Your task to perform on an android device: Open location settings Image 0: 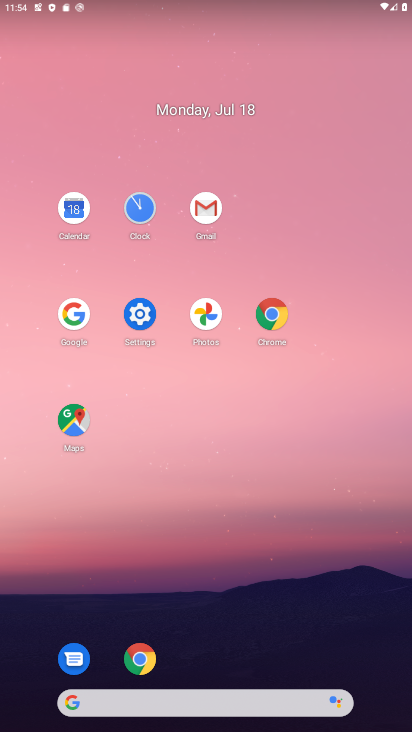
Step 0: click (135, 309)
Your task to perform on an android device: Open location settings Image 1: 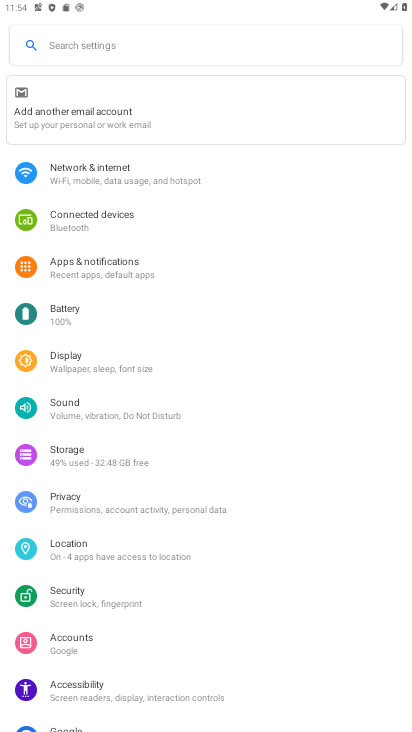
Step 1: click (161, 543)
Your task to perform on an android device: Open location settings Image 2: 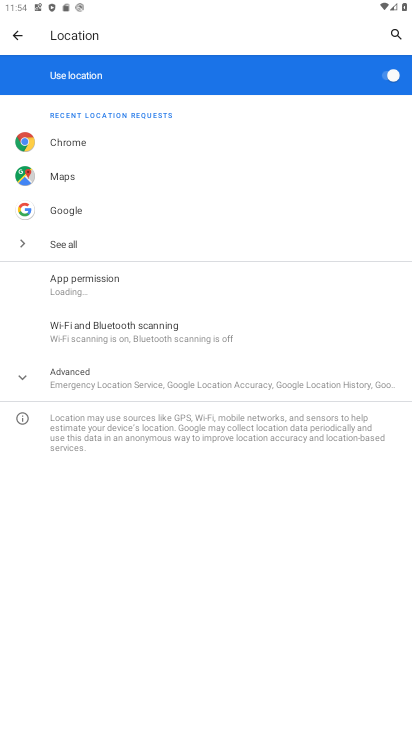
Step 2: task complete